Your task to perform on an android device: Open the phone app and click the voicemail tab. Image 0: 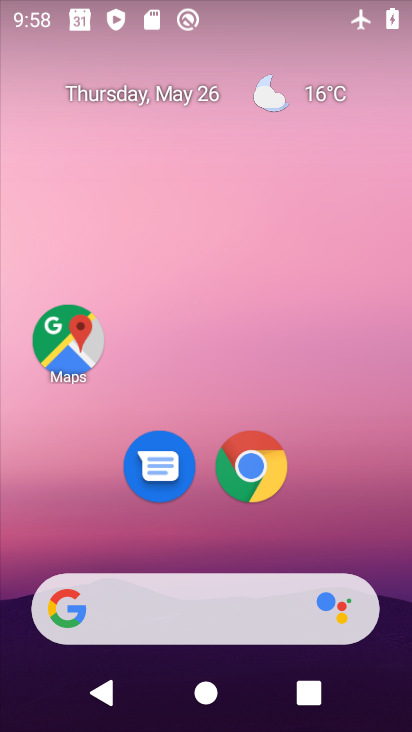
Step 0: drag from (340, 498) to (182, 56)
Your task to perform on an android device: Open the phone app and click the voicemail tab. Image 1: 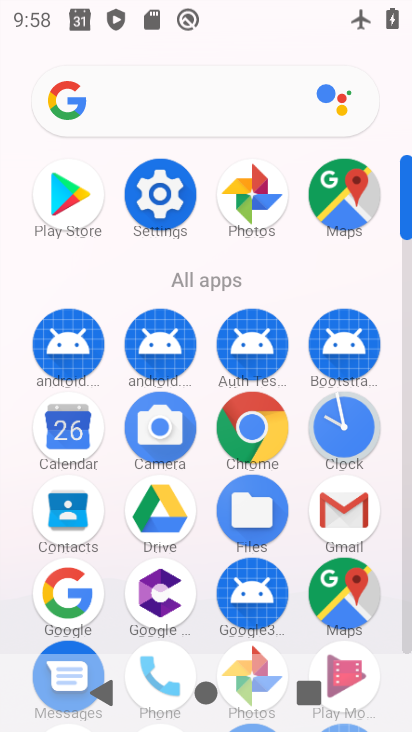
Step 1: drag from (204, 607) to (164, 336)
Your task to perform on an android device: Open the phone app and click the voicemail tab. Image 2: 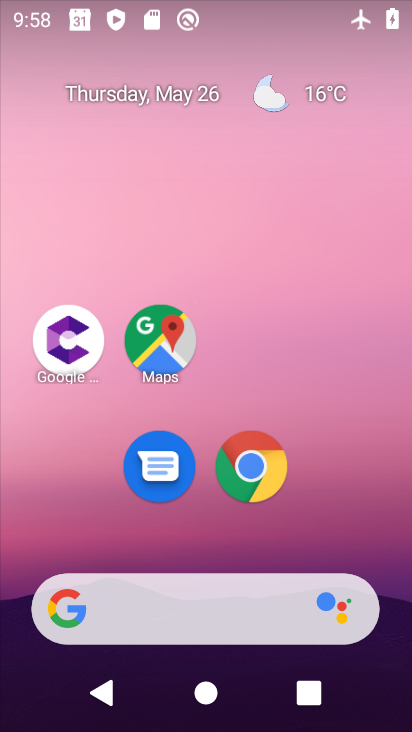
Step 2: drag from (321, 512) to (234, 163)
Your task to perform on an android device: Open the phone app and click the voicemail tab. Image 3: 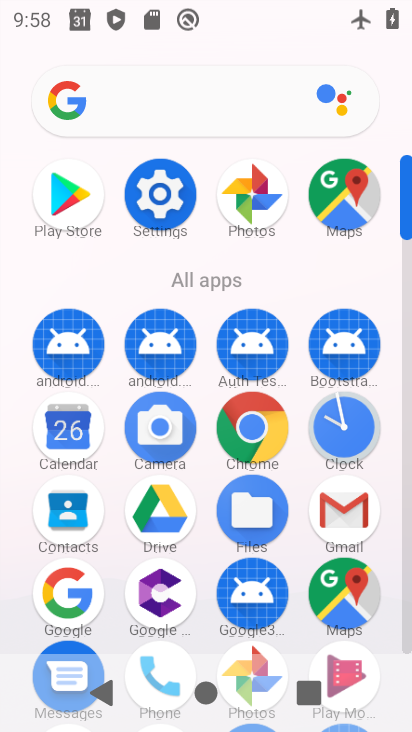
Step 3: drag from (382, 541) to (344, 250)
Your task to perform on an android device: Open the phone app and click the voicemail tab. Image 4: 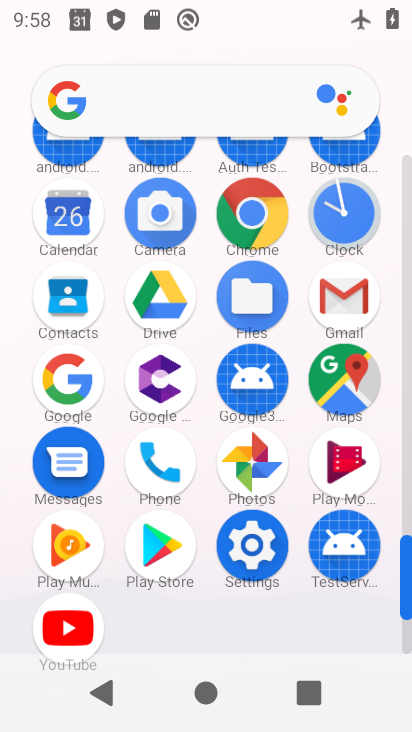
Step 4: click (162, 458)
Your task to perform on an android device: Open the phone app and click the voicemail tab. Image 5: 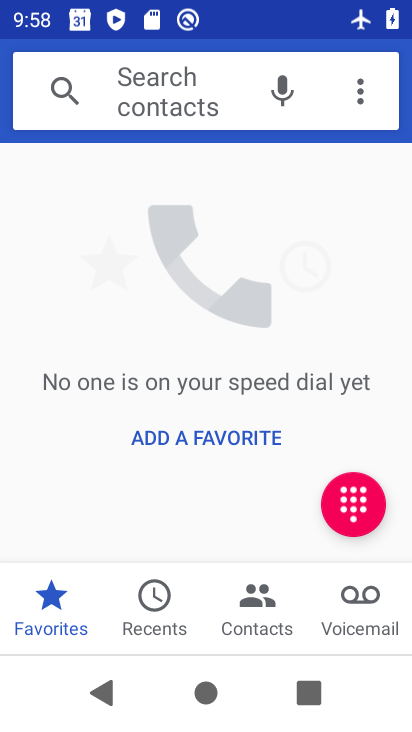
Step 5: click (352, 604)
Your task to perform on an android device: Open the phone app and click the voicemail tab. Image 6: 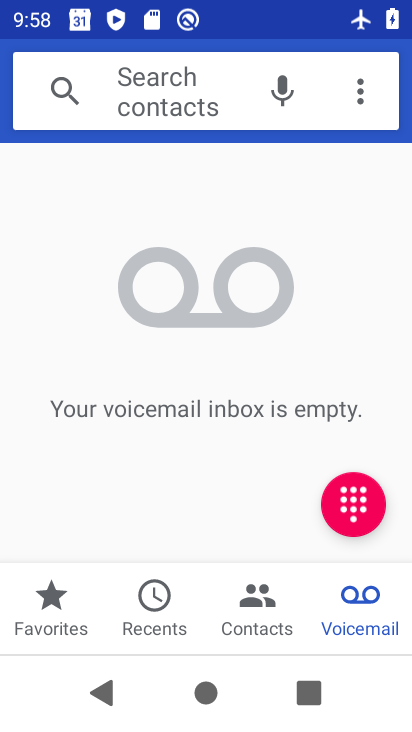
Step 6: task complete